Your task to perform on an android device: Show the shopping cart on amazon.com. Add "jbl flip 4" to the cart on amazon.com, then select checkout. Image 0: 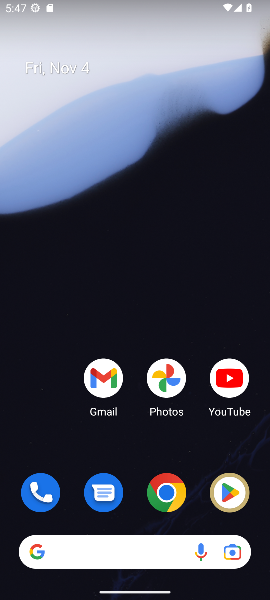
Step 0: drag from (133, 436) to (140, 7)
Your task to perform on an android device: Show the shopping cart on amazon.com. Add "jbl flip 4" to the cart on amazon.com, then select checkout. Image 1: 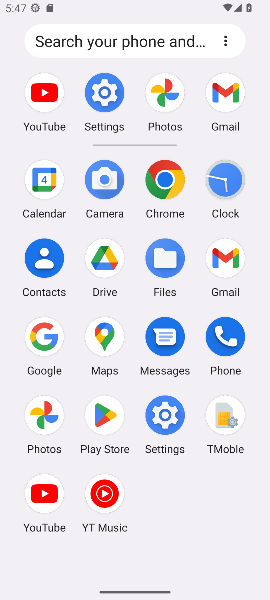
Step 1: click (165, 175)
Your task to perform on an android device: Show the shopping cart on amazon.com. Add "jbl flip 4" to the cart on amazon.com, then select checkout. Image 2: 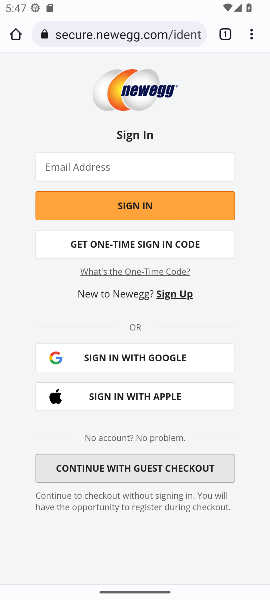
Step 2: click (151, 30)
Your task to perform on an android device: Show the shopping cart on amazon.com. Add "jbl flip 4" to the cart on amazon.com, then select checkout. Image 3: 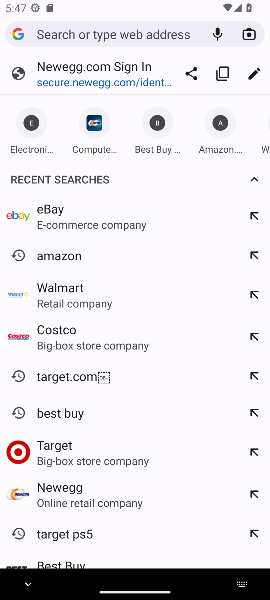
Step 3: type "amazon.com"
Your task to perform on an android device: Show the shopping cart on amazon.com. Add "jbl flip 4" to the cart on amazon.com, then select checkout. Image 4: 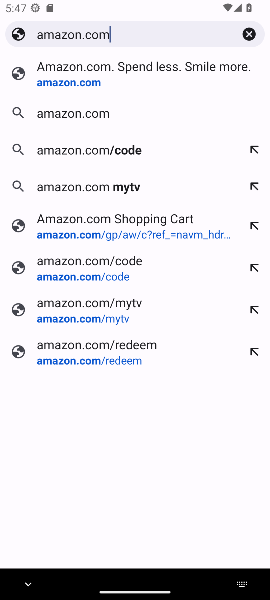
Step 4: press enter
Your task to perform on an android device: Show the shopping cart on amazon.com. Add "jbl flip 4" to the cart on amazon.com, then select checkout. Image 5: 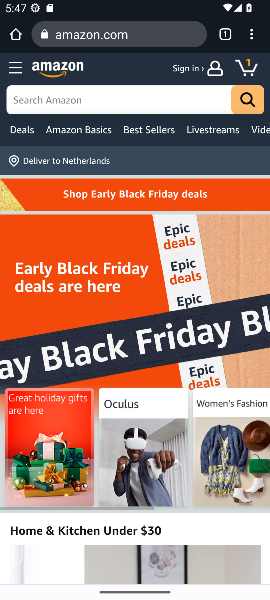
Step 5: click (249, 71)
Your task to perform on an android device: Show the shopping cart on amazon.com. Add "jbl flip 4" to the cart on amazon.com, then select checkout. Image 6: 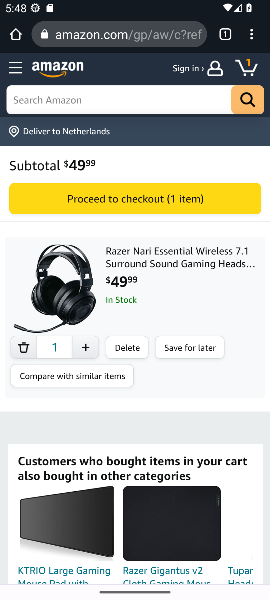
Step 6: click (164, 100)
Your task to perform on an android device: Show the shopping cart on amazon.com. Add "jbl flip 4" to the cart on amazon.com, then select checkout. Image 7: 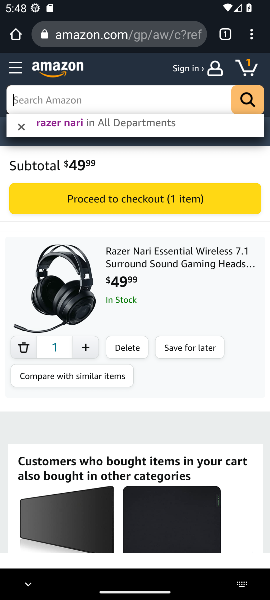
Step 7: type "jbl flip 4"
Your task to perform on an android device: Show the shopping cart on amazon.com. Add "jbl flip 4" to the cart on amazon.com, then select checkout. Image 8: 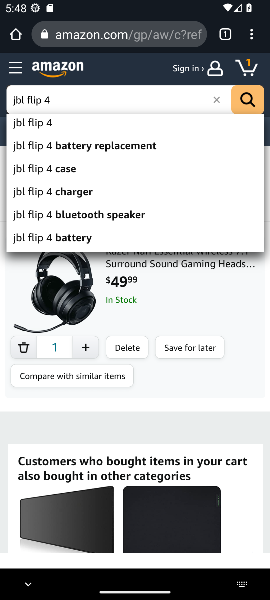
Step 8: press enter
Your task to perform on an android device: Show the shopping cart on amazon.com. Add "jbl flip 4" to the cart on amazon.com, then select checkout. Image 9: 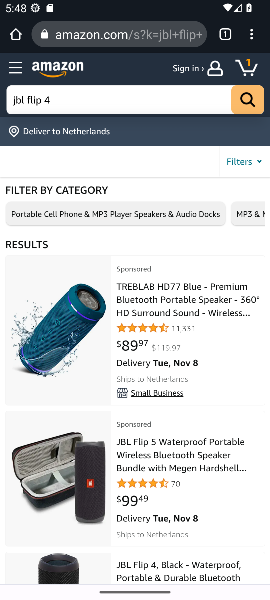
Step 9: drag from (137, 529) to (193, 186)
Your task to perform on an android device: Show the shopping cart on amazon.com. Add "jbl flip 4" to the cart on amazon.com, then select checkout. Image 10: 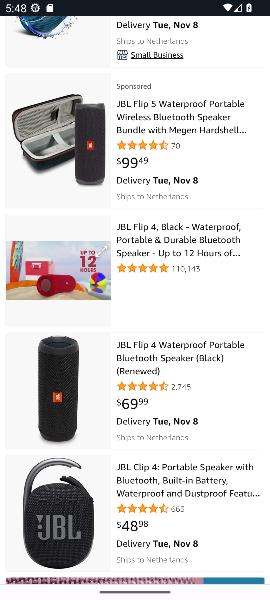
Step 10: click (169, 254)
Your task to perform on an android device: Show the shopping cart on amazon.com. Add "jbl flip 4" to the cart on amazon.com, then select checkout. Image 11: 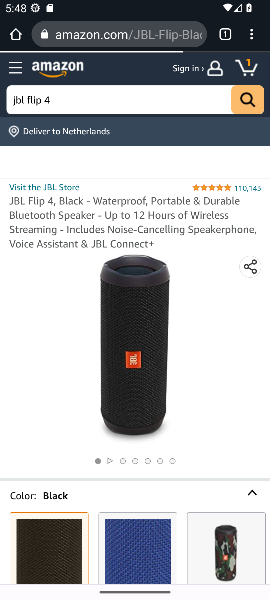
Step 11: task complete